Your task to perform on an android device: Go to internet settings Image 0: 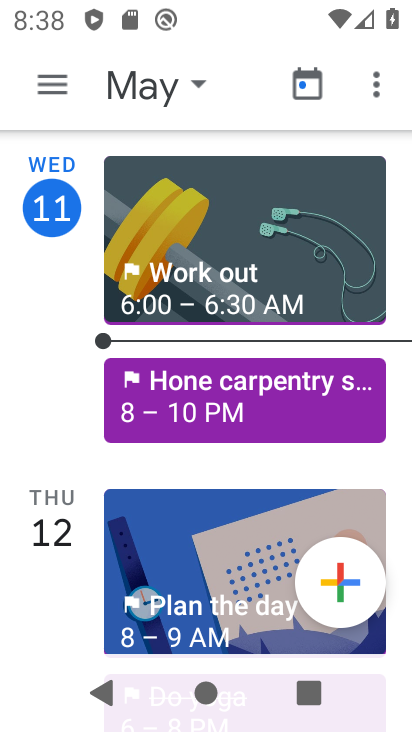
Step 0: press back button
Your task to perform on an android device: Go to internet settings Image 1: 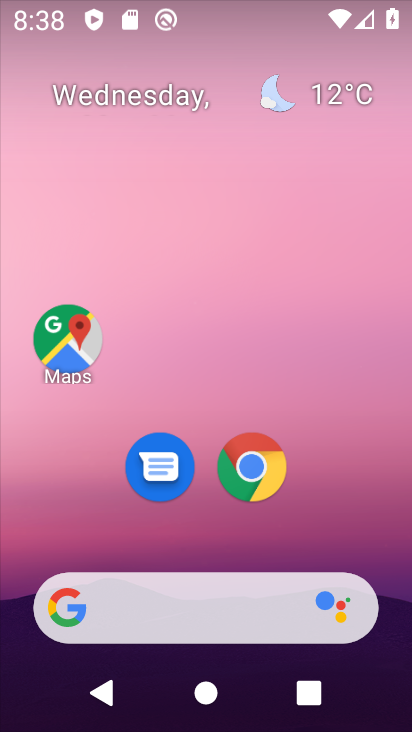
Step 1: drag from (214, 470) to (285, 35)
Your task to perform on an android device: Go to internet settings Image 2: 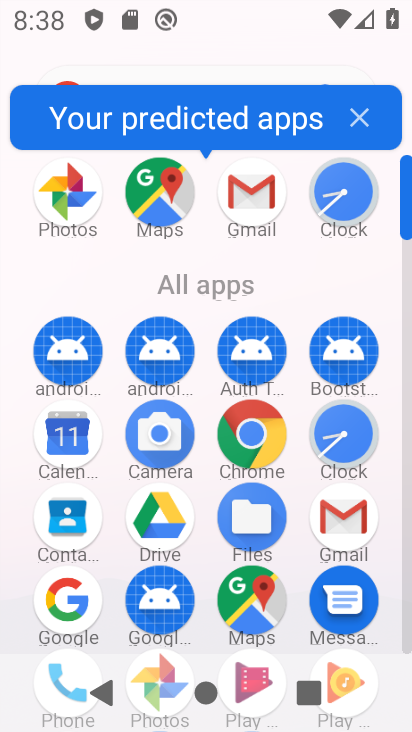
Step 2: drag from (219, 540) to (280, 127)
Your task to perform on an android device: Go to internet settings Image 3: 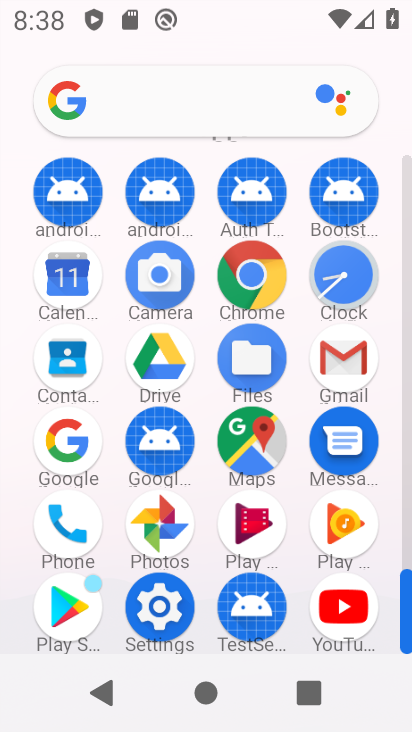
Step 3: click (172, 604)
Your task to perform on an android device: Go to internet settings Image 4: 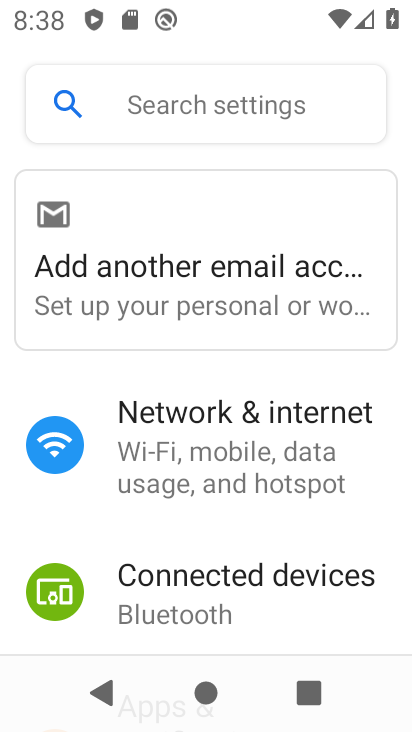
Step 4: click (187, 426)
Your task to perform on an android device: Go to internet settings Image 5: 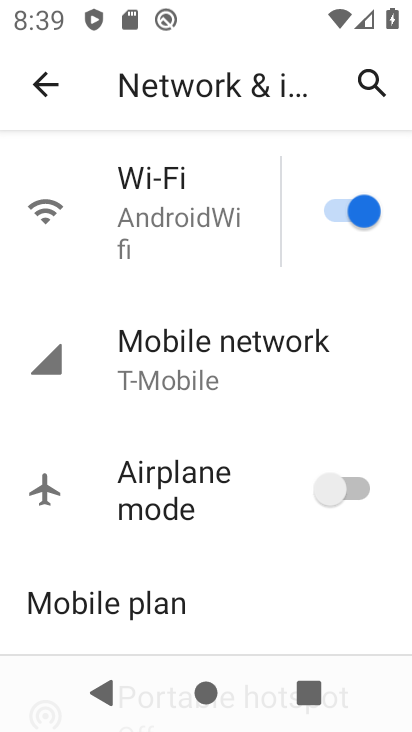
Step 5: task complete